Your task to perform on an android device: check out phone information Image 0: 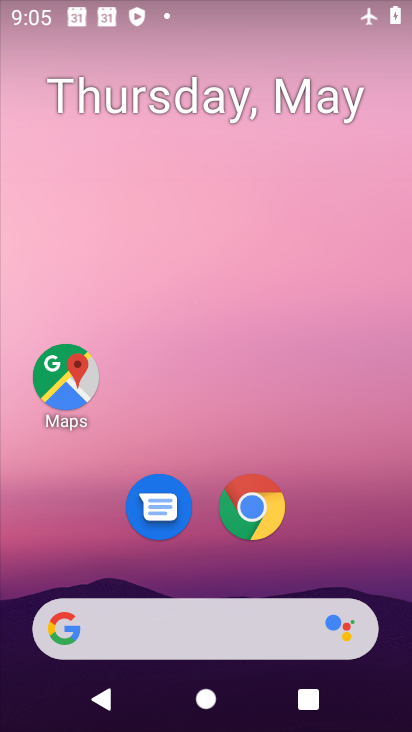
Step 0: drag from (241, 636) to (298, 61)
Your task to perform on an android device: check out phone information Image 1: 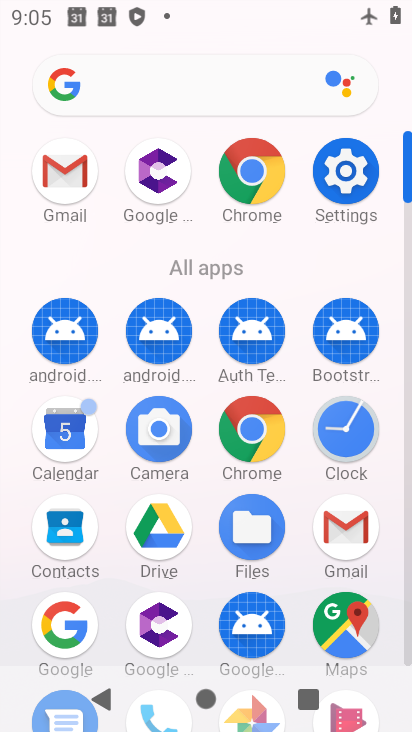
Step 1: click (358, 195)
Your task to perform on an android device: check out phone information Image 2: 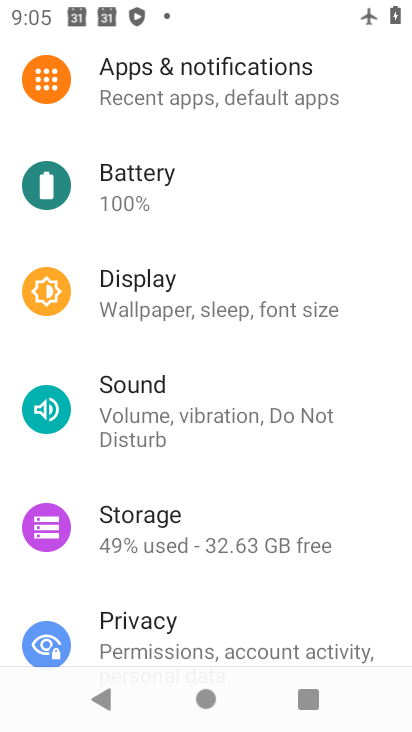
Step 2: drag from (233, 482) to (238, 127)
Your task to perform on an android device: check out phone information Image 3: 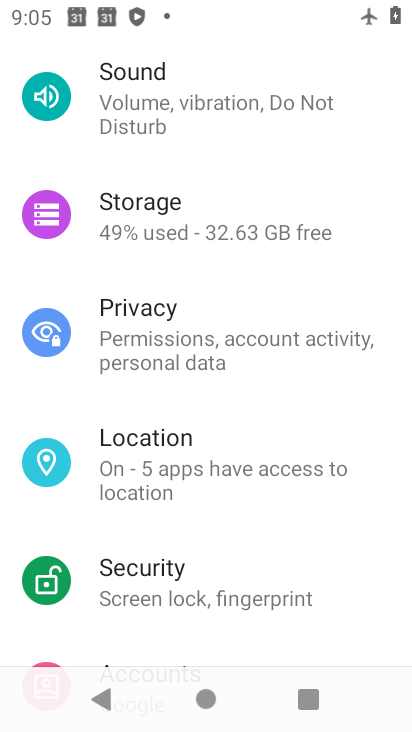
Step 3: drag from (251, 491) to (235, 150)
Your task to perform on an android device: check out phone information Image 4: 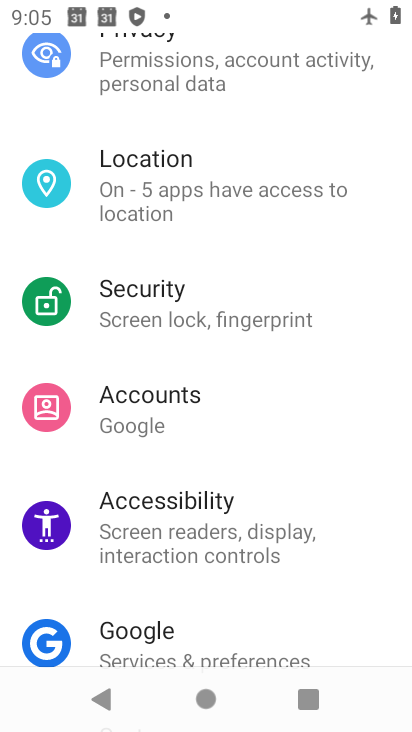
Step 4: drag from (250, 514) to (288, 59)
Your task to perform on an android device: check out phone information Image 5: 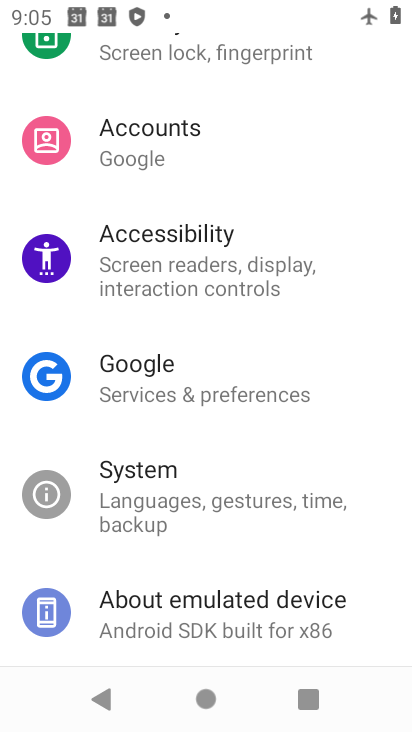
Step 5: drag from (209, 491) to (189, 141)
Your task to perform on an android device: check out phone information Image 6: 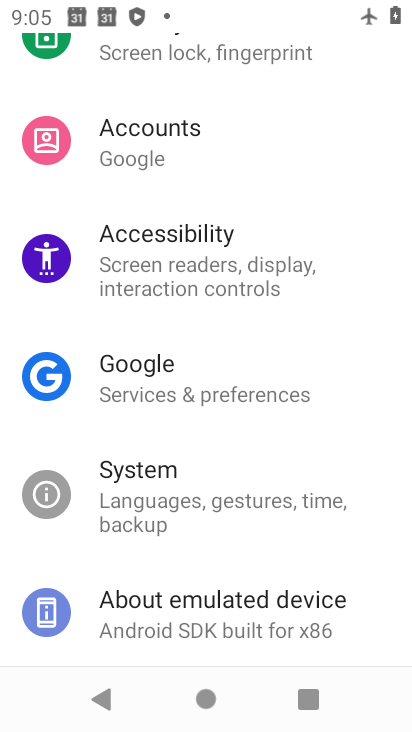
Step 6: click (234, 633)
Your task to perform on an android device: check out phone information Image 7: 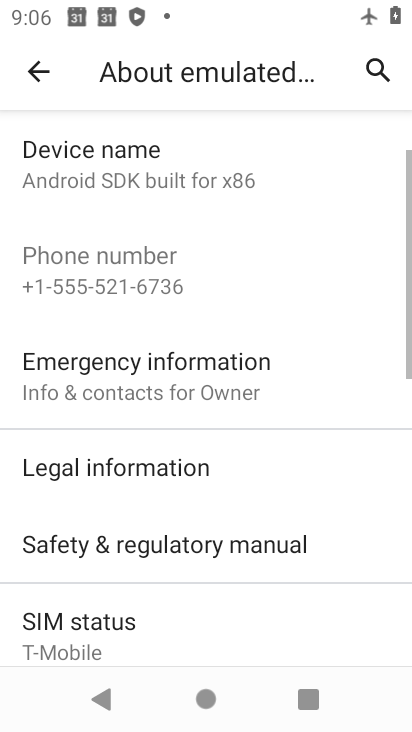
Step 7: task complete